Your task to perform on an android device: turn on the 24-hour format for clock Image 0: 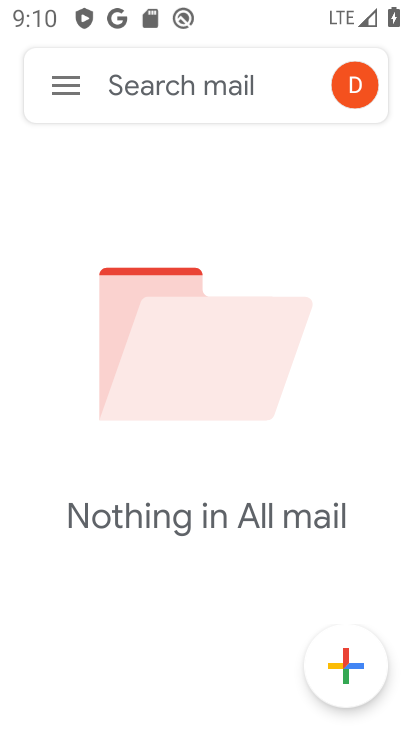
Step 0: press back button
Your task to perform on an android device: turn on the 24-hour format for clock Image 1: 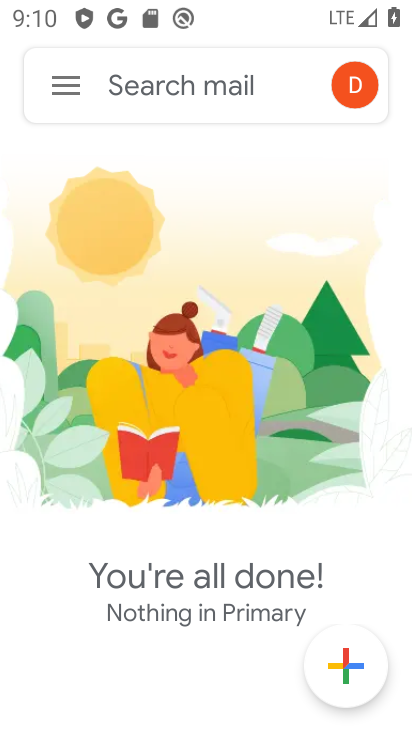
Step 1: press back button
Your task to perform on an android device: turn on the 24-hour format for clock Image 2: 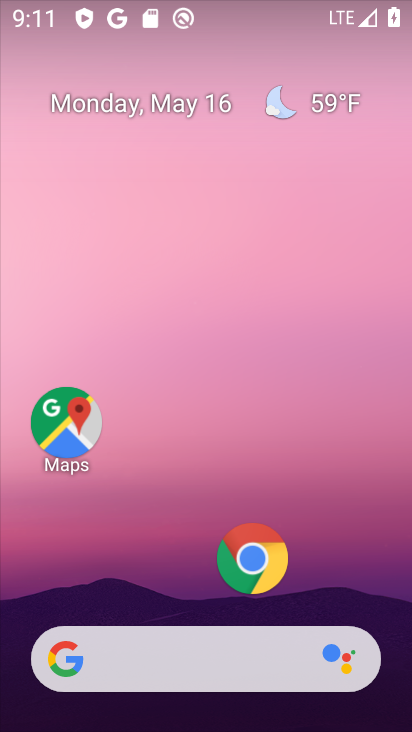
Step 2: drag from (172, 561) to (296, 30)
Your task to perform on an android device: turn on the 24-hour format for clock Image 3: 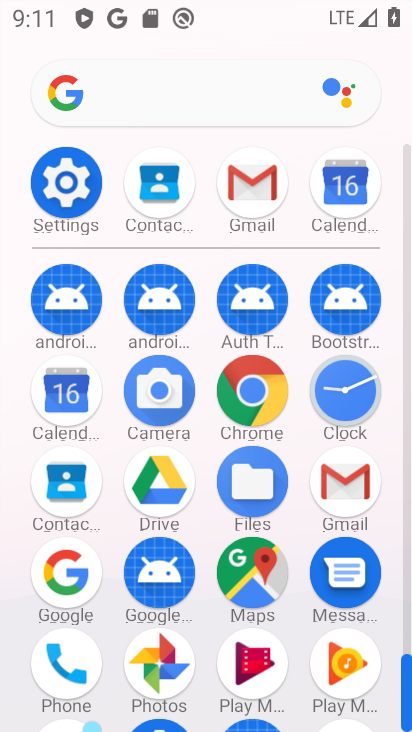
Step 3: click (351, 396)
Your task to perform on an android device: turn on the 24-hour format for clock Image 4: 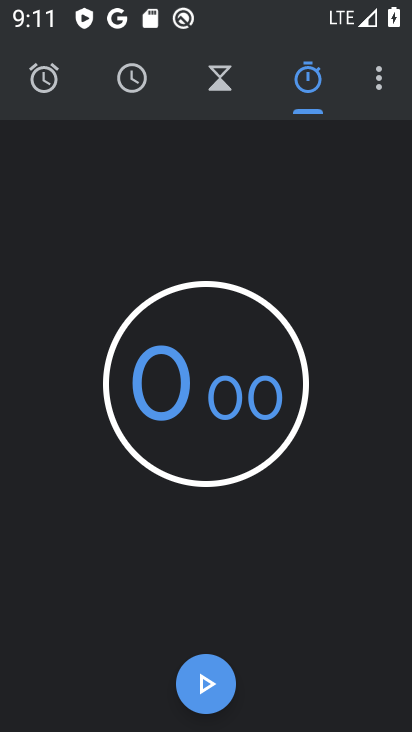
Step 4: click (372, 80)
Your task to perform on an android device: turn on the 24-hour format for clock Image 5: 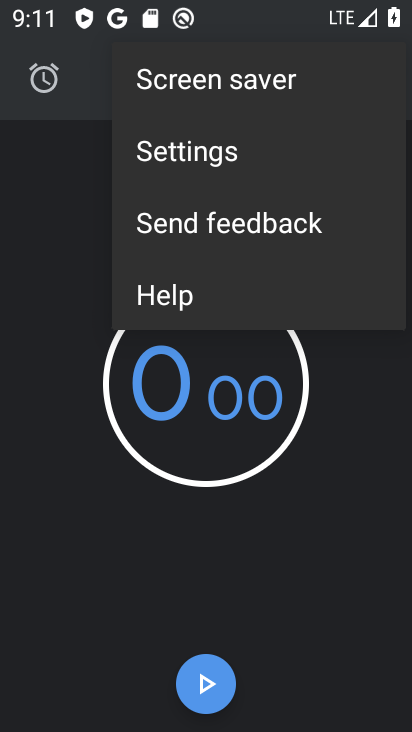
Step 5: click (253, 151)
Your task to perform on an android device: turn on the 24-hour format for clock Image 6: 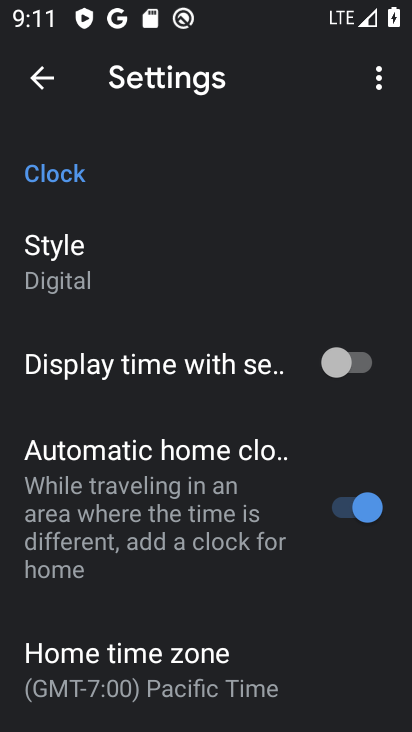
Step 6: drag from (197, 631) to (280, 102)
Your task to perform on an android device: turn on the 24-hour format for clock Image 7: 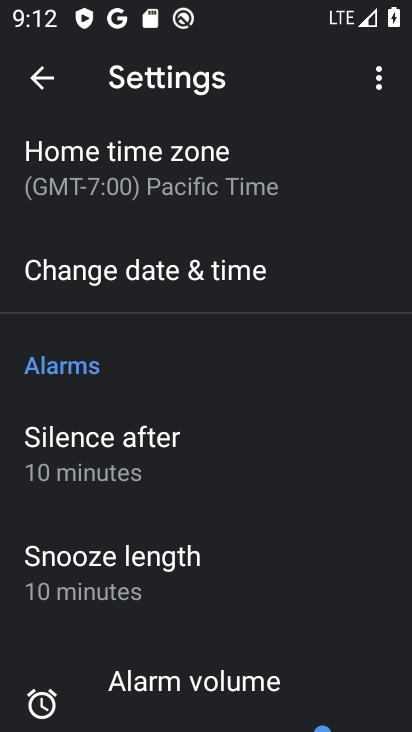
Step 7: click (132, 276)
Your task to perform on an android device: turn on the 24-hour format for clock Image 8: 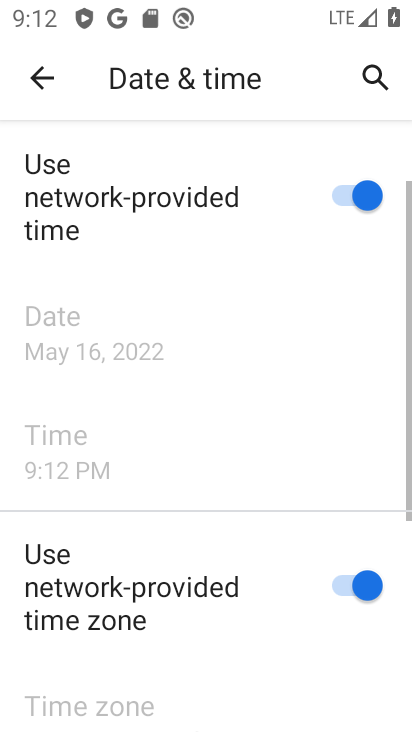
Step 8: drag from (230, 584) to (316, 24)
Your task to perform on an android device: turn on the 24-hour format for clock Image 9: 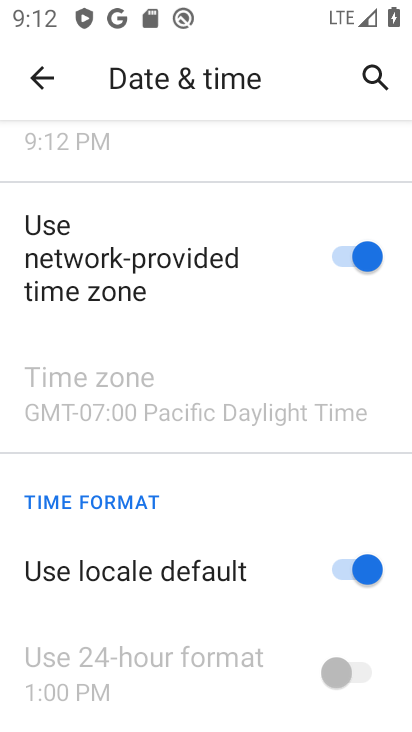
Step 9: click (372, 564)
Your task to perform on an android device: turn on the 24-hour format for clock Image 10: 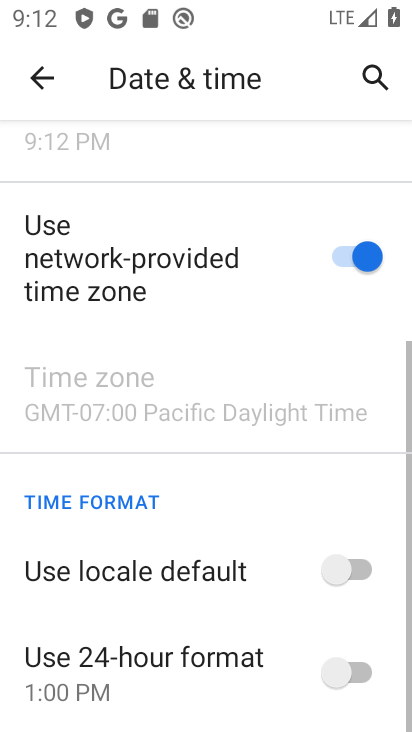
Step 10: click (351, 659)
Your task to perform on an android device: turn on the 24-hour format for clock Image 11: 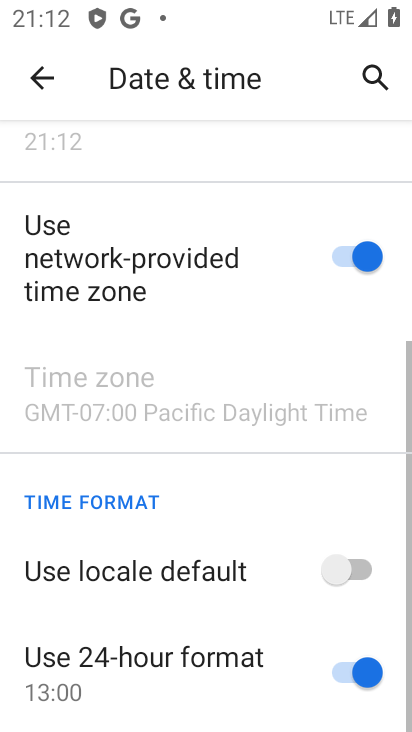
Step 11: task complete